Your task to perform on an android device: change the clock style Image 0: 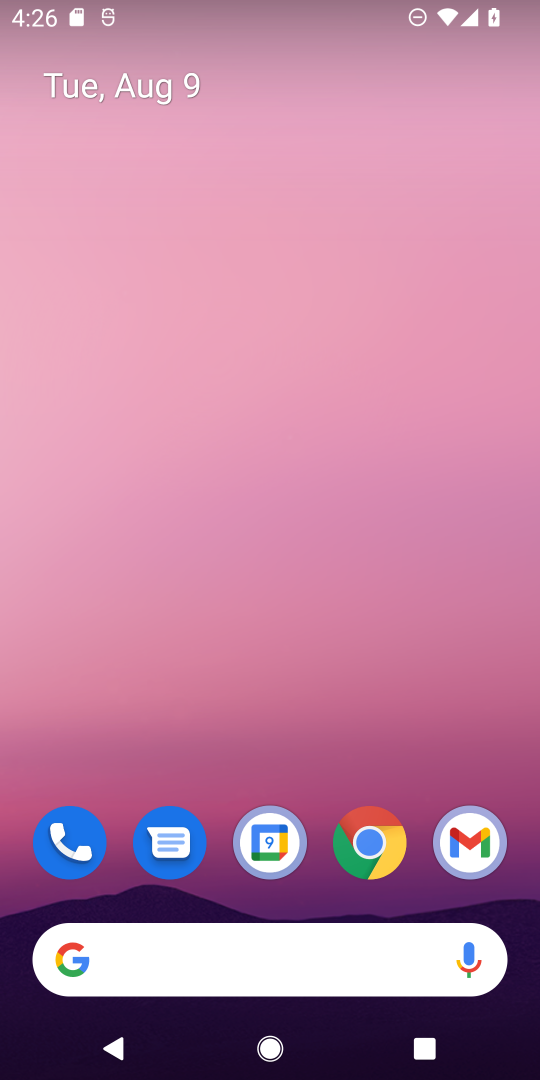
Step 0: drag from (309, 967) to (276, 288)
Your task to perform on an android device: change the clock style Image 1: 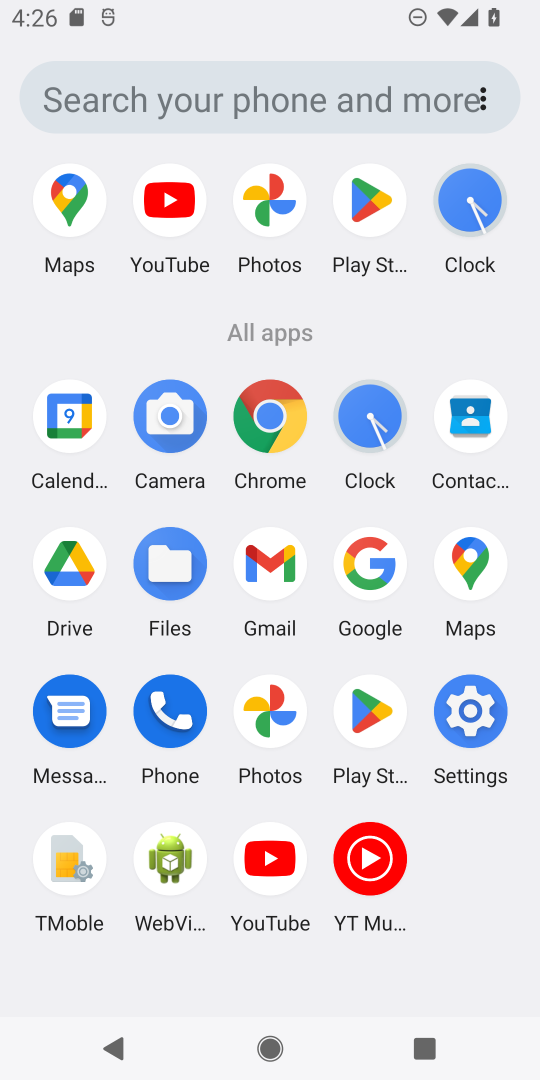
Step 1: click (365, 428)
Your task to perform on an android device: change the clock style Image 2: 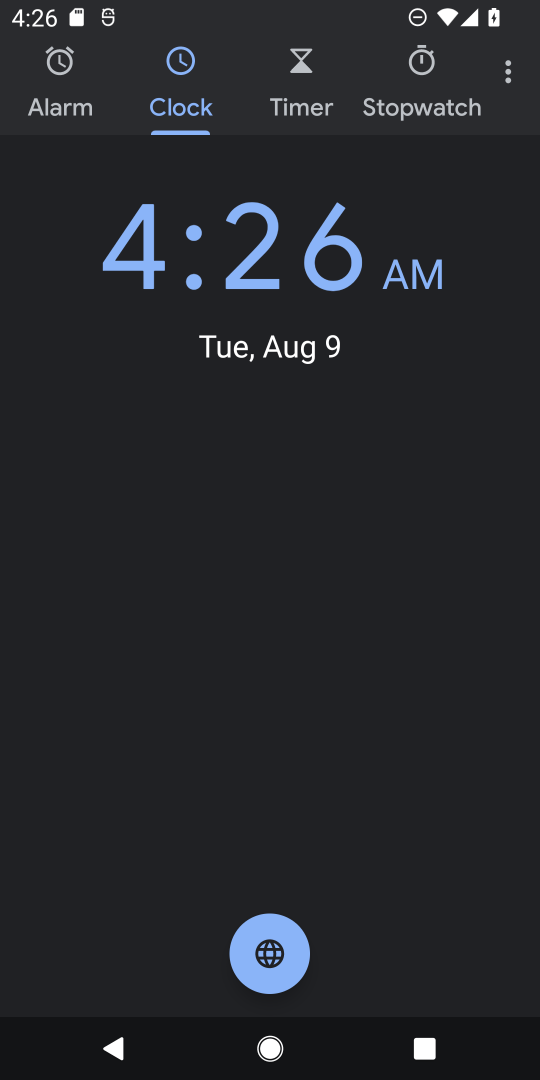
Step 2: click (504, 61)
Your task to perform on an android device: change the clock style Image 3: 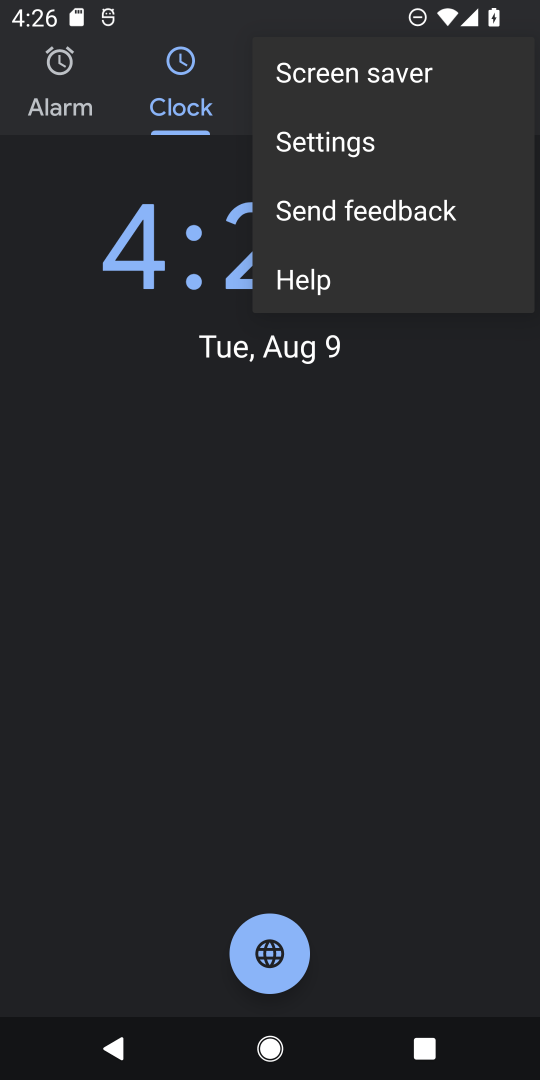
Step 3: click (379, 131)
Your task to perform on an android device: change the clock style Image 4: 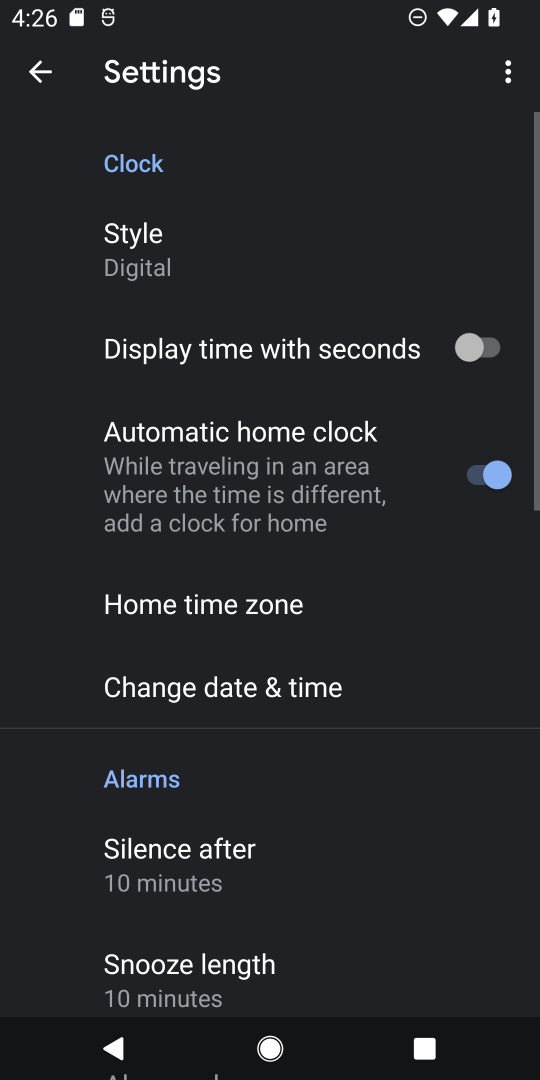
Step 4: click (181, 254)
Your task to perform on an android device: change the clock style Image 5: 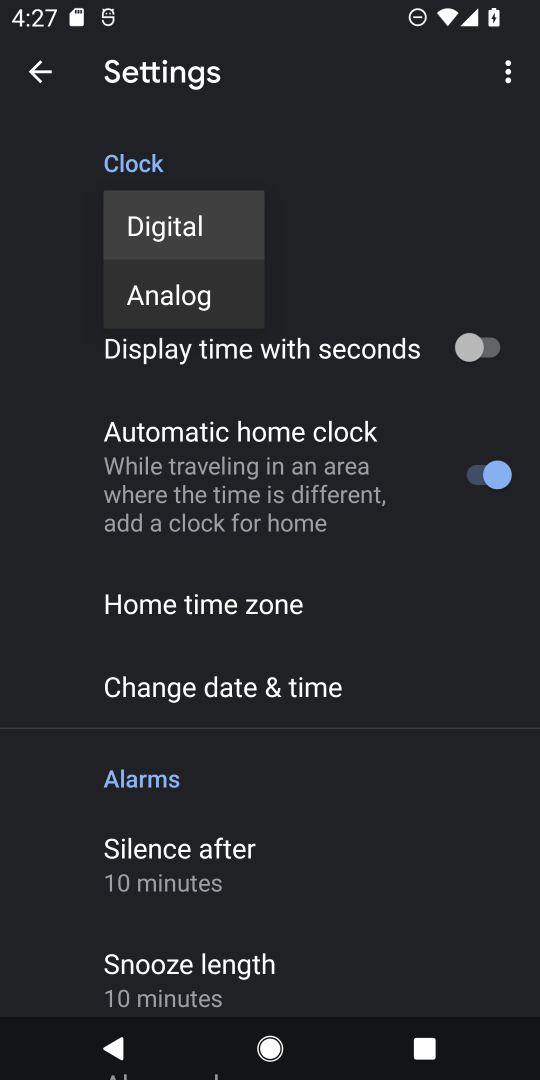
Step 5: click (154, 286)
Your task to perform on an android device: change the clock style Image 6: 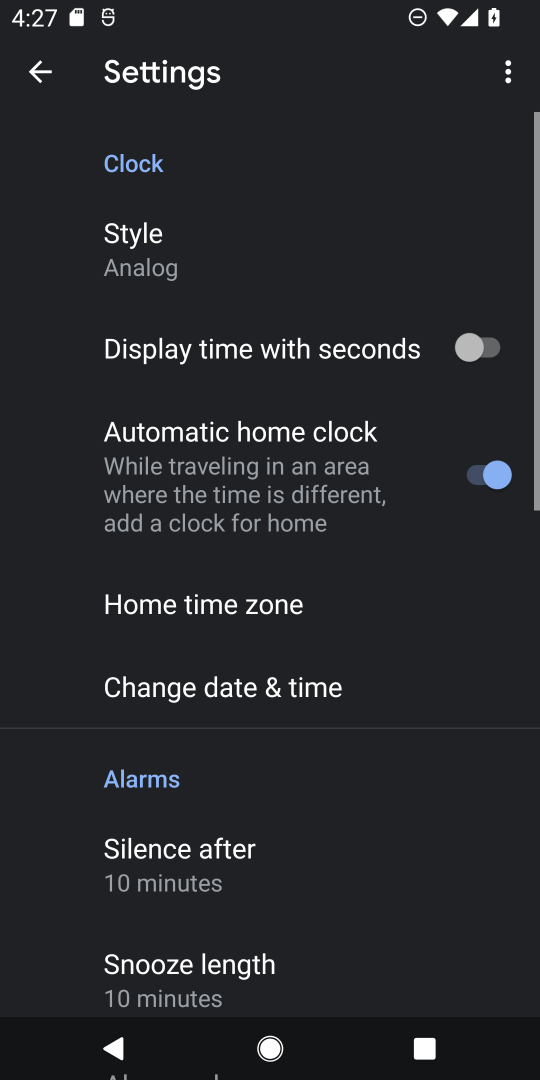
Step 6: task complete